Your task to perform on an android device: Open calendar and show me the third week of next month Image 0: 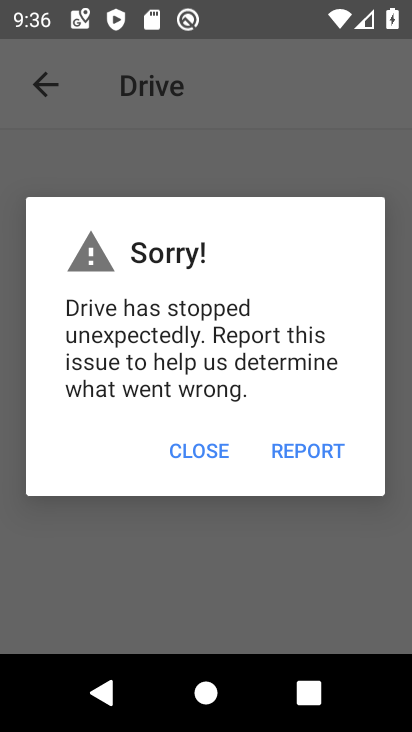
Step 0: click (209, 450)
Your task to perform on an android device: Open calendar and show me the third week of next month Image 1: 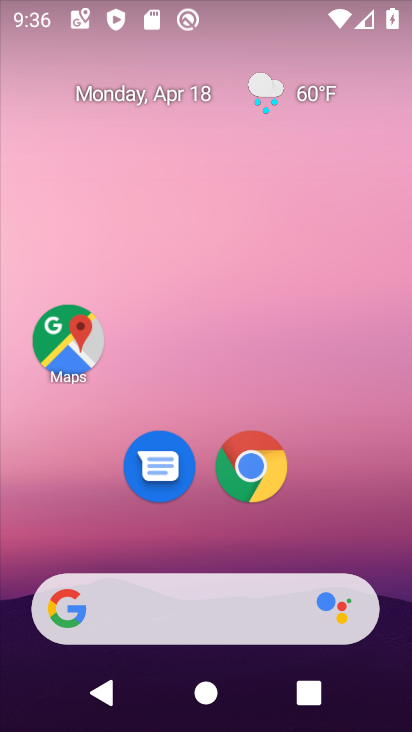
Step 1: drag from (312, 574) to (314, 117)
Your task to perform on an android device: Open calendar and show me the third week of next month Image 2: 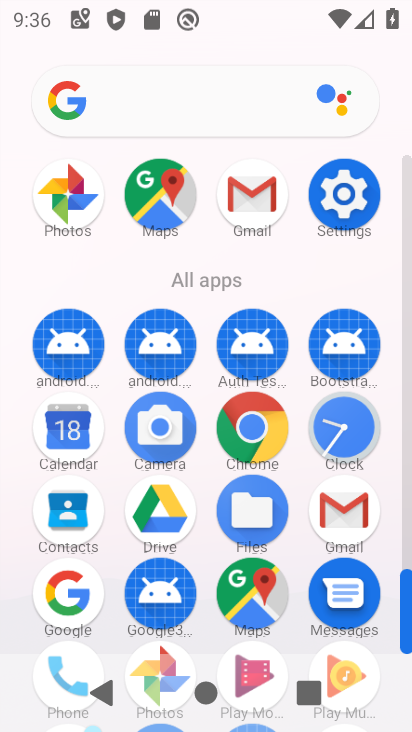
Step 2: drag from (278, 599) to (304, 441)
Your task to perform on an android device: Open calendar and show me the third week of next month Image 3: 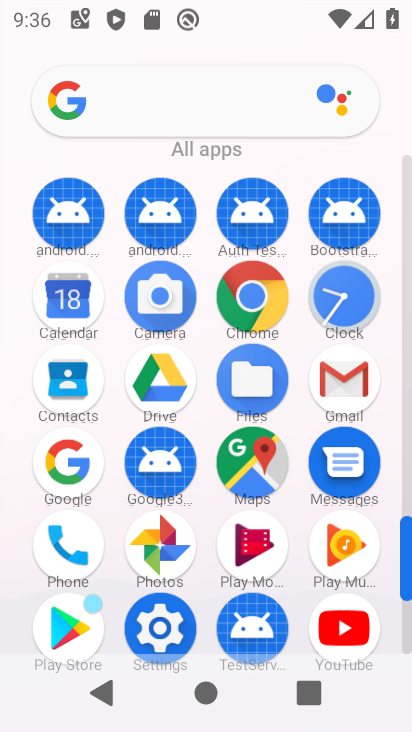
Step 3: click (64, 300)
Your task to perform on an android device: Open calendar and show me the third week of next month Image 4: 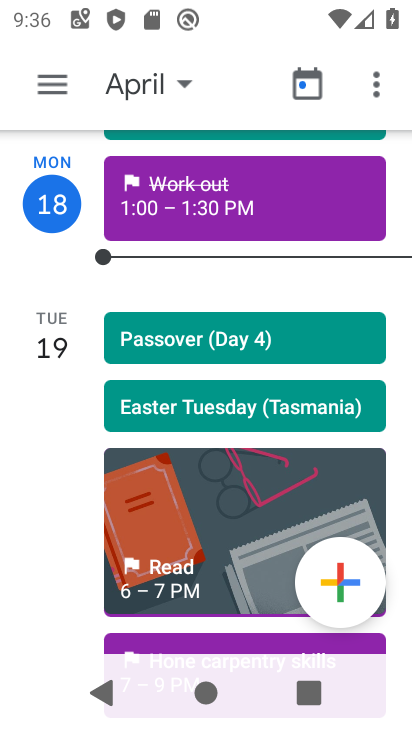
Step 4: click (165, 86)
Your task to perform on an android device: Open calendar and show me the third week of next month Image 5: 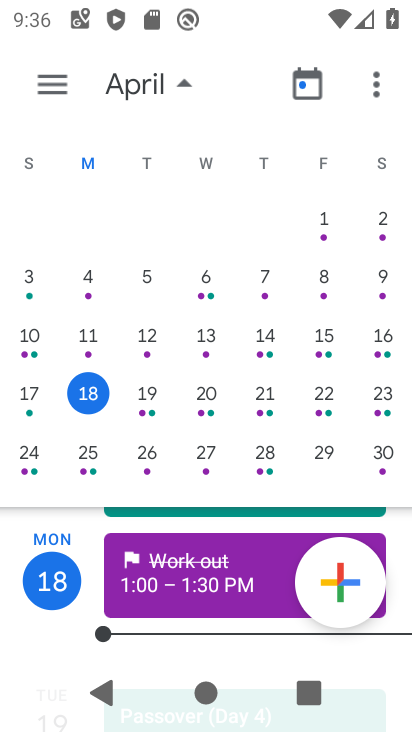
Step 5: drag from (381, 316) to (119, 349)
Your task to perform on an android device: Open calendar and show me the third week of next month Image 6: 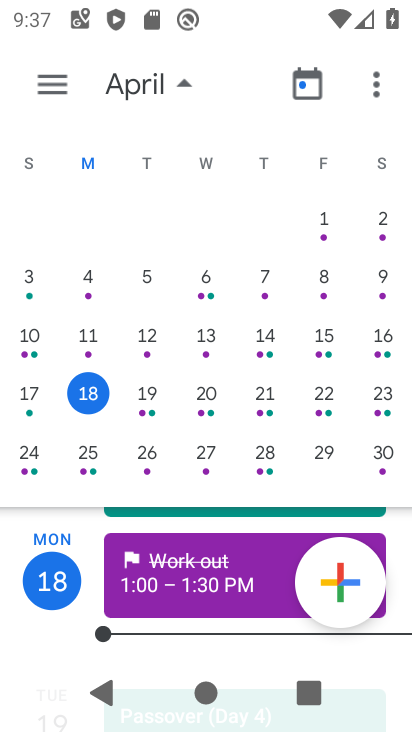
Step 6: drag from (376, 348) to (4, 334)
Your task to perform on an android device: Open calendar and show me the third week of next month Image 7: 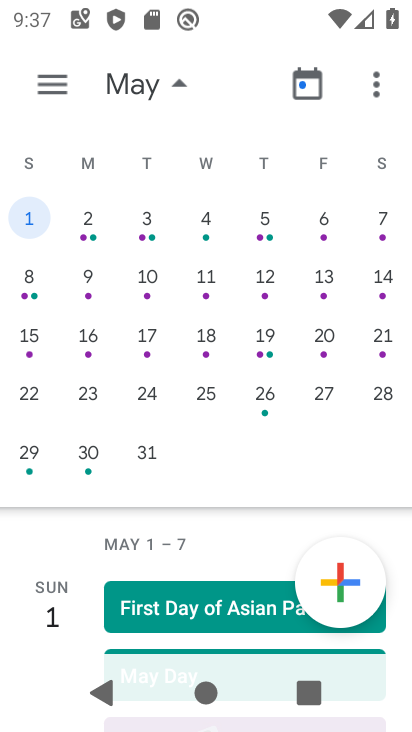
Step 7: click (215, 333)
Your task to perform on an android device: Open calendar and show me the third week of next month Image 8: 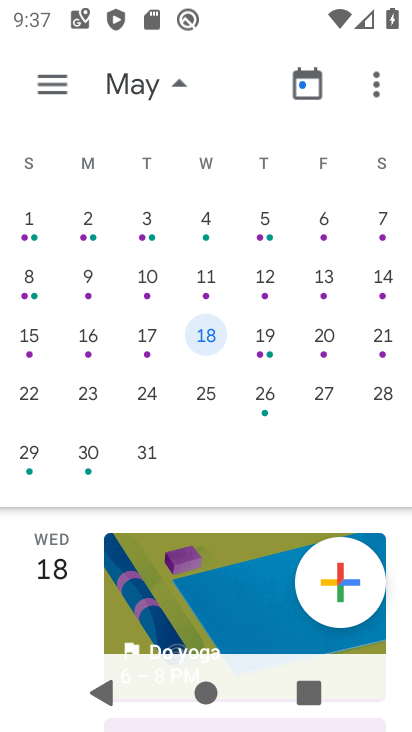
Step 8: click (58, 85)
Your task to perform on an android device: Open calendar and show me the third week of next month Image 9: 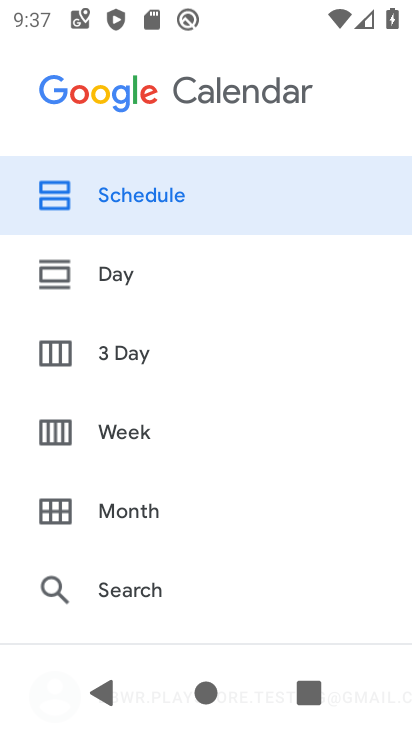
Step 9: click (133, 425)
Your task to perform on an android device: Open calendar and show me the third week of next month Image 10: 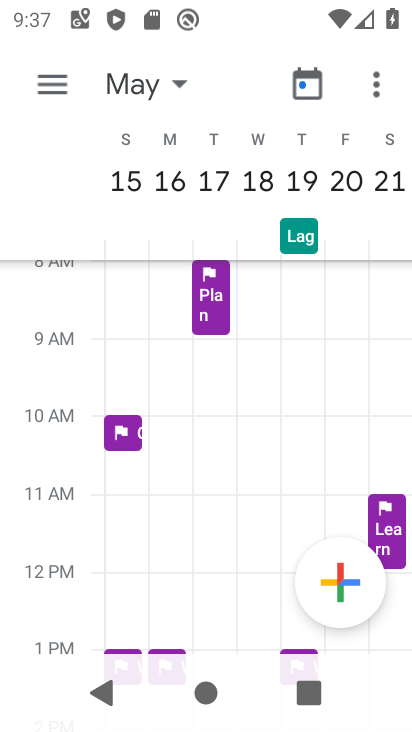
Step 10: task complete